Your task to perform on an android device: open wifi settings Image 0: 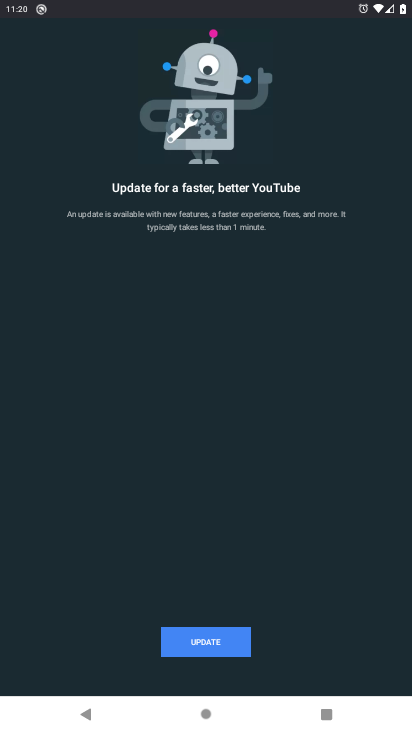
Step 0: press home button
Your task to perform on an android device: open wifi settings Image 1: 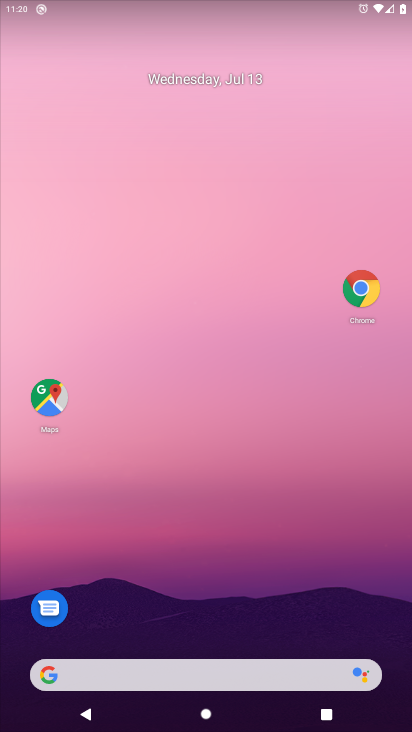
Step 1: drag from (48, 698) to (318, 41)
Your task to perform on an android device: open wifi settings Image 2: 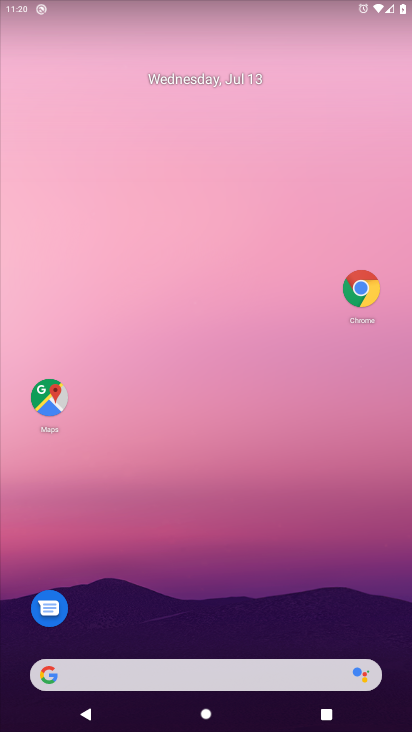
Step 2: drag from (31, 704) to (271, 3)
Your task to perform on an android device: open wifi settings Image 3: 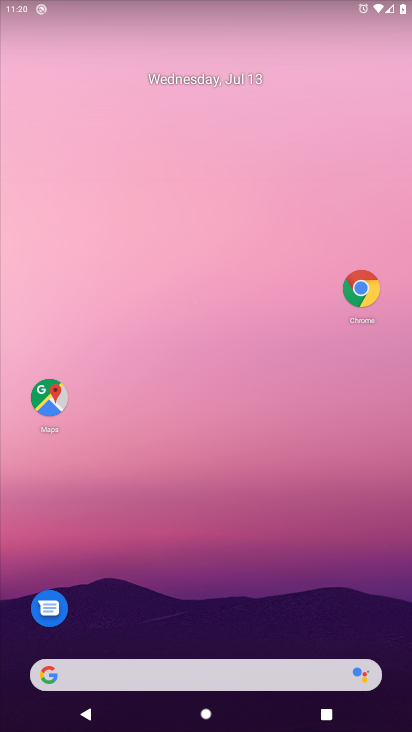
Step 3: drag from (42, 716) to (188, 165)
Your task to perform on an android device: open wifi settings Image 4: 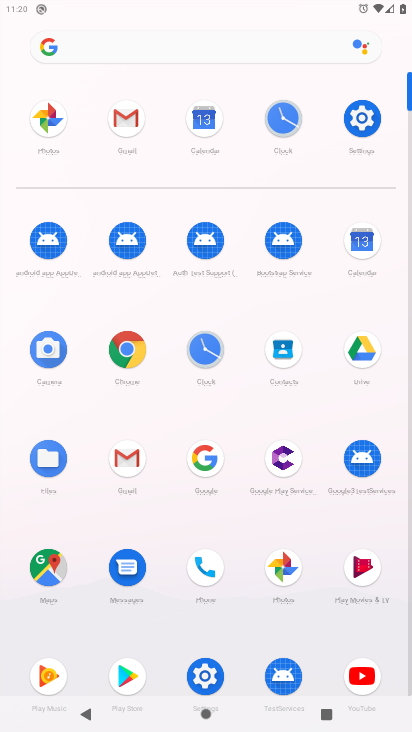
Step 4: click (193, 675)
Your task to perform on an android device: open wifi settings Image 5: 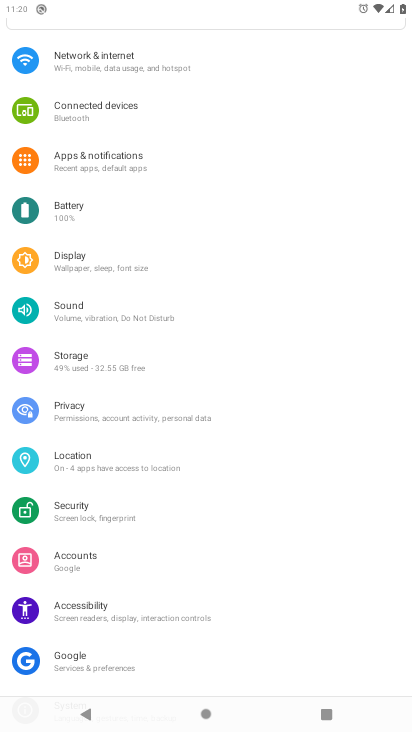
Step 5: click (132, 61)
Your task to perform on an android device: open wifi settings Image 6: 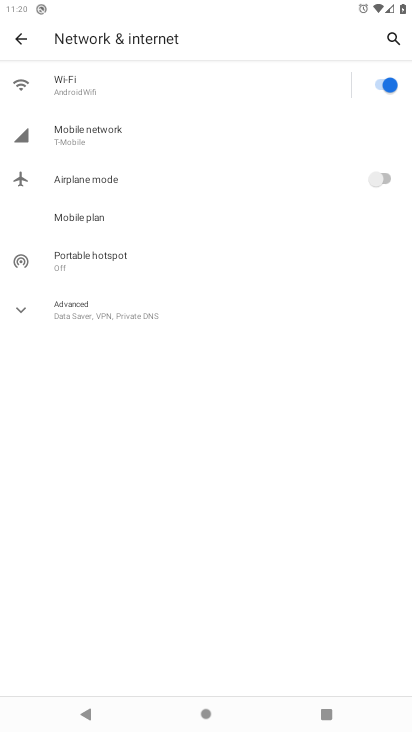
Step 6: click (82, 80)
Your task to perform on an android device: open wifi settings Image 7: 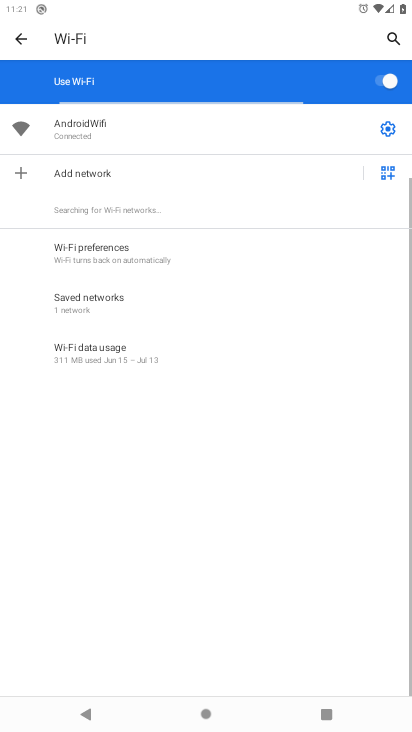
Step 7: task complete